Your task to perform on an android device: Toggle the flashlight Image 0: 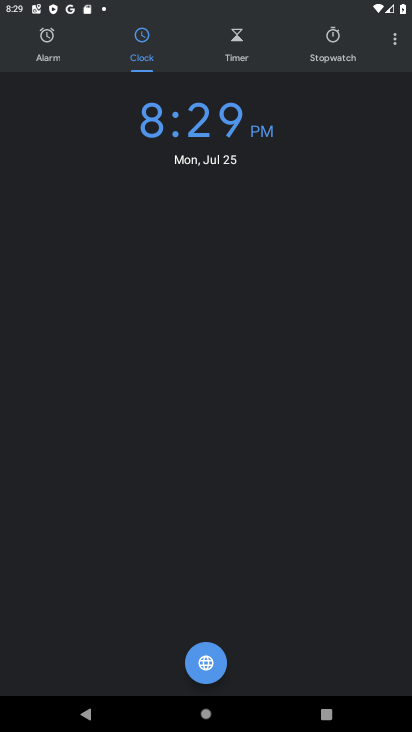
Step 0: press home button
Your task to perform on an android device: Toggle the flashlight Image 1: 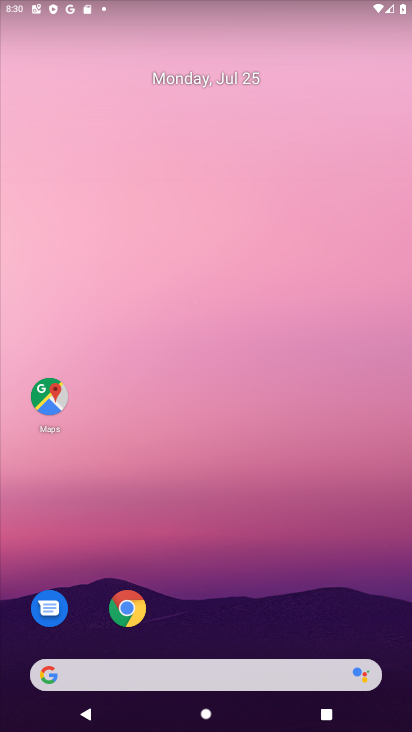
Step 1: task complete